Your task to perform on an android device: turn off javascript in the chrome app Image 0: 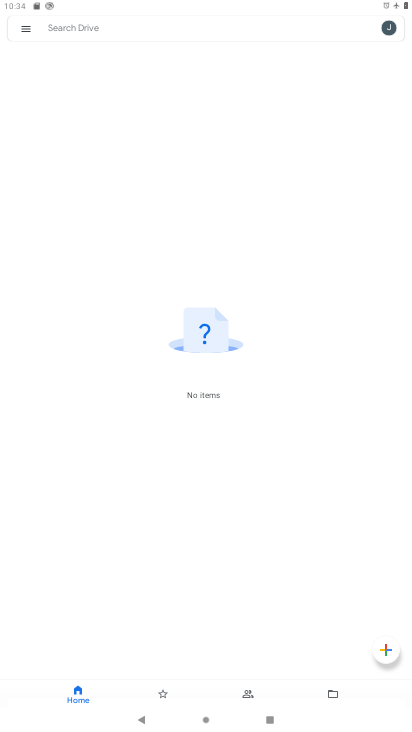
Step 0: press home button
Your task to perform on an android device: turn off javascript in the chrome app Image 1: 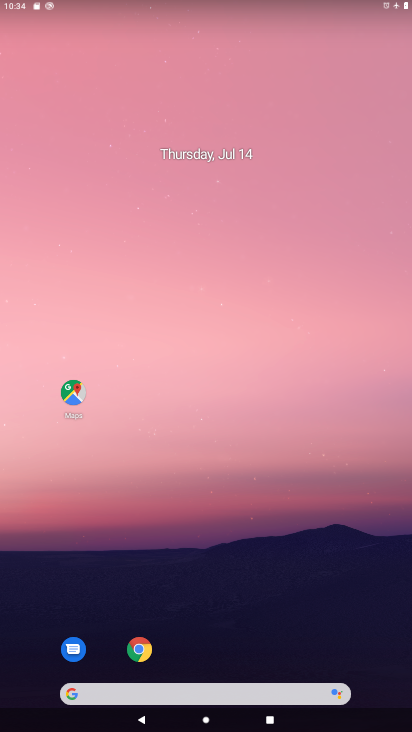
Step 1: click (147, 651)
Your task to perform on an android device: turn off javascript in the chrome app Image 2: 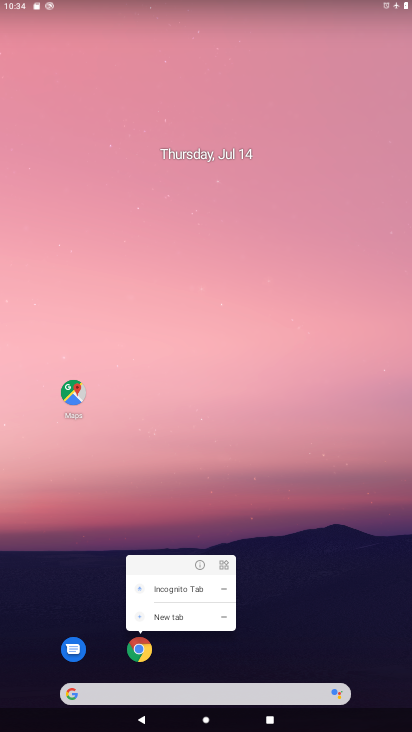
Step 2: click (147, 651)
Your task to perform on an android device: turn off javascript in the chrome app Image 3: 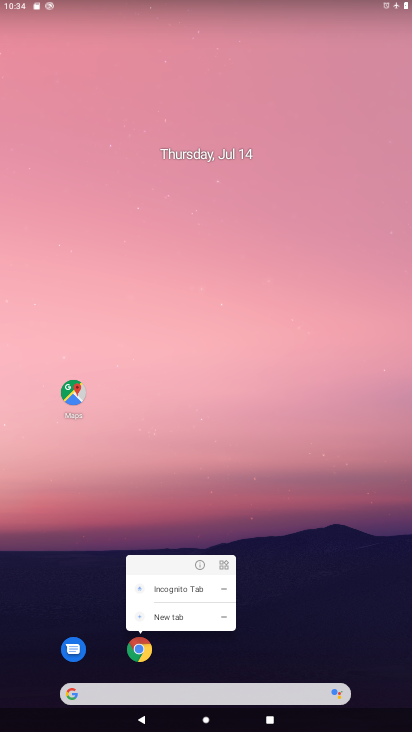
Step 3: click (147, 651)
Your task to perform on an android device: turn off javascript in the chrome app Image 4: 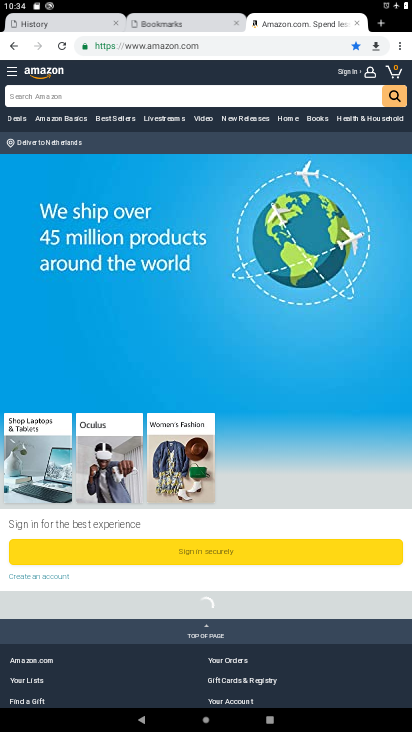
Step 4: click (403, 45)
Your task to perform on an android device: turn off javascript in the chrome app Image 5: 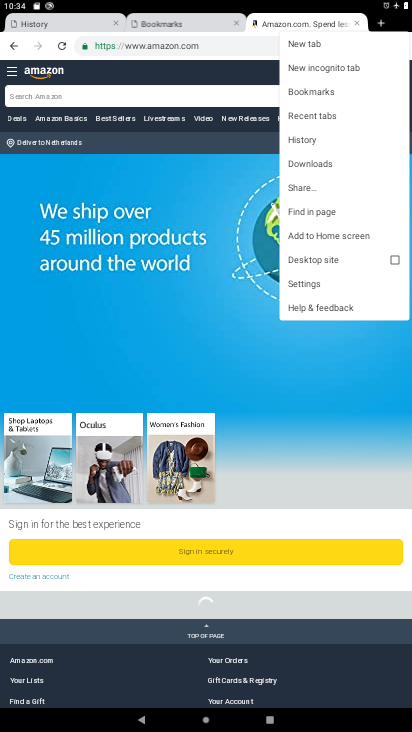
Step 5: click (317, 284)
Your task to perform on an android device: turn off javascript in the chrome app Image 6: 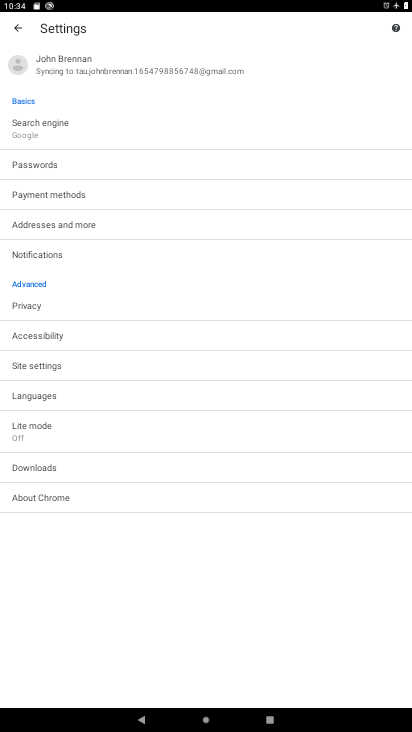
Step 6: click (58, 365)
Your task to perform on an android device: turn off javascript in the chrome app Image 7: 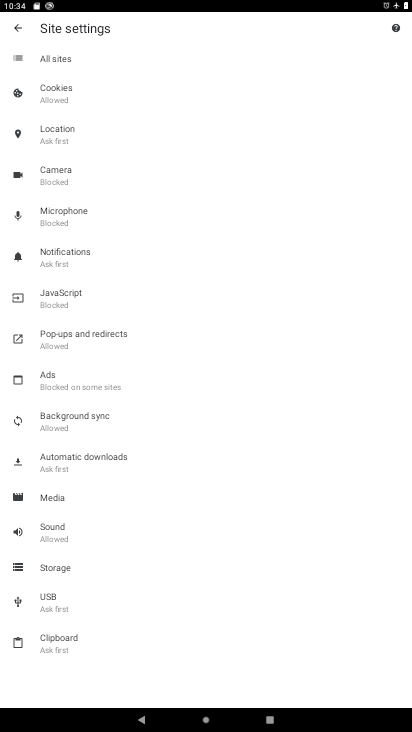
Step 7: click (65, 298)
Your task to perform on an android device: turn off javascript in the chrome app Image 8: 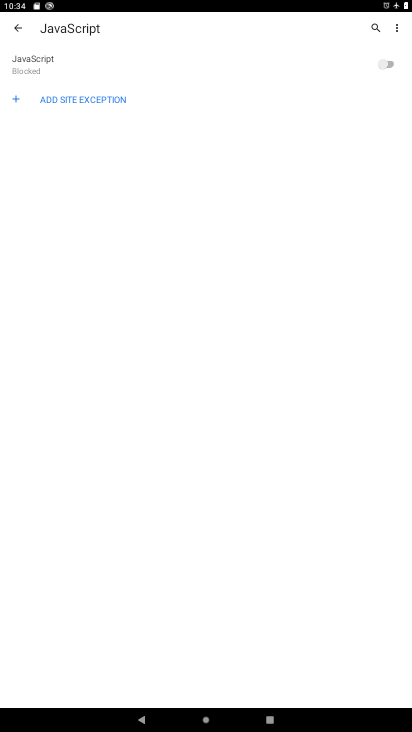
Step 8: task complete